Your task to perform on an android device: Clear the cart on ebay.com. Add razer blackwidow to the cart on ebay.com Image 0: 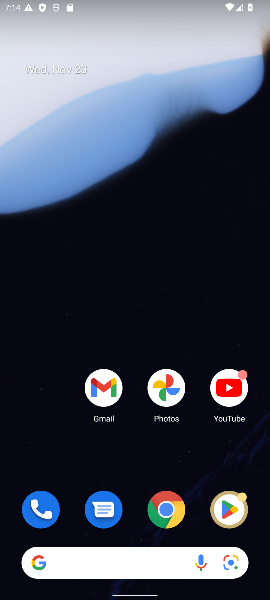
Step 0: click (166, 506)
Your task to perform on an android device: Clear the cart on ebay.com. Add razer blackwidow to the cart on ebay.com Image 1: 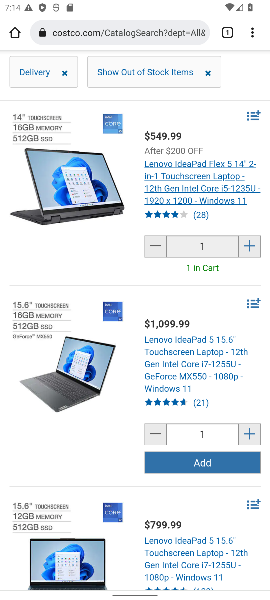
Step 1: click (151, 30)
Your task to perform on an android device: Clear the cart on ebay.com. Add razer blackwidow to the cart on ebay.com Image 2: 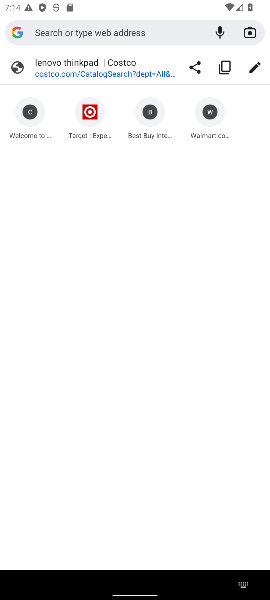
Step 2: type "ebay.com"
Your task to perform on an android device: Clear the cart on ebay.com. Add razer blackwidow to the cart on ebay.com Image 3: 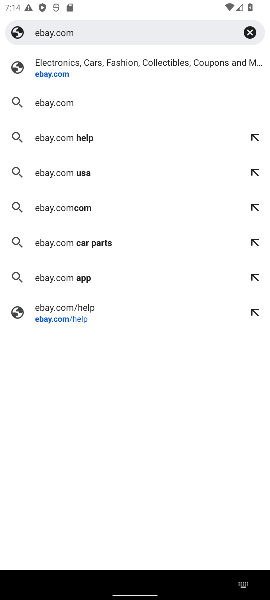
Step 3: click (162, 63)
Your task to perform on an android device: Clear the cart on ebay.com. Add razer blackwidow to the cart on ebay.com Image 4: 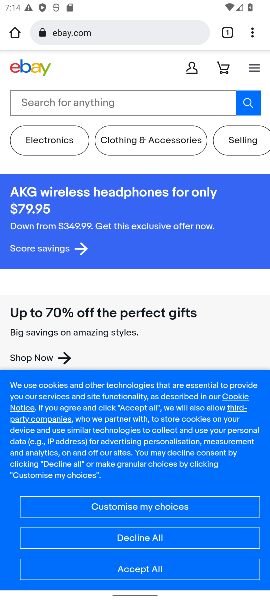
Step 4: click (224, 69)
Your task to perform on an android device: Clear the cart on ebay.com. Add razer blackwidow to the cart on ebay.com Image 5: 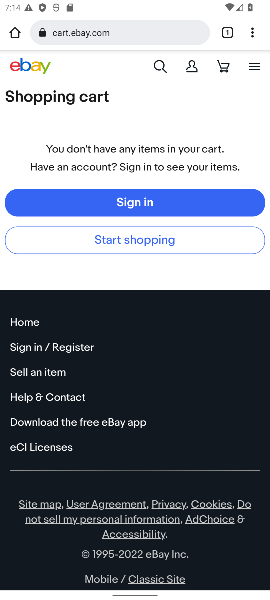
Step 5: click (162, 68)
Your task to perform on an android device: Clear the cart on ebay.com. Add razer blackwidow to the cart on ebay.com Image 6: 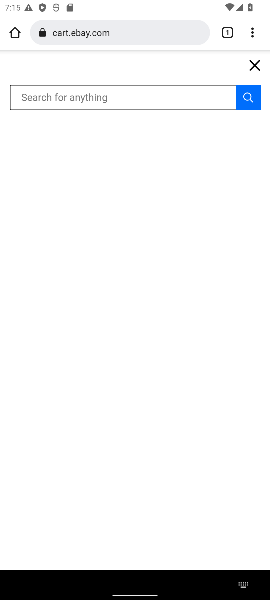
Step 6: type "razer blackwidow"
Your task to perform on an android device: Clear the cart on ebay.com. Add razer blackwidow to the cart on ebay.com Image 7: 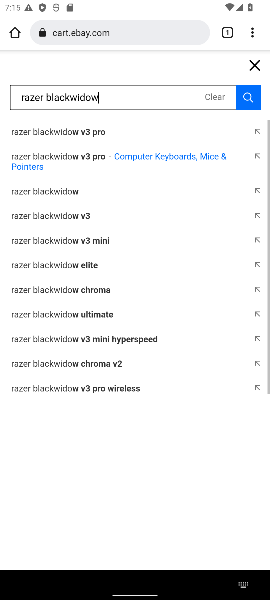
Step 7: press enter
Your task to perform on an android device: Clear the cart on ebay.com. Add razer blackwidow to the cart on ebay.com Image 8: 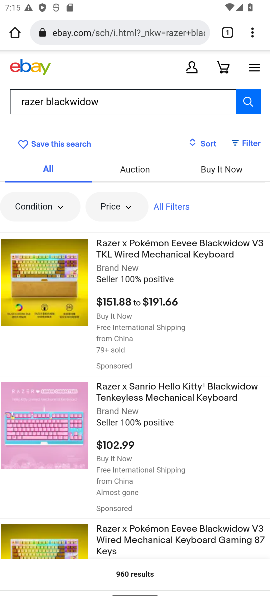
Step 8: click (167, 262)
Your task to perform on an android device: Clear the cart on ebay.com. Add razer blackwidow to the cart on ebay.com Image 9: 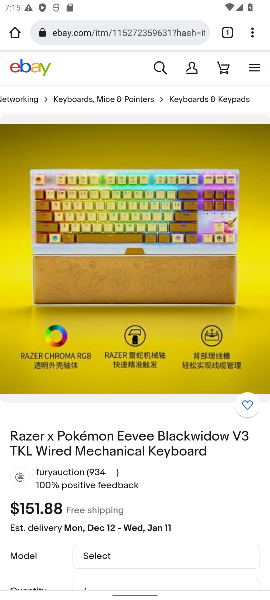
Step 9: drag from (177, 453) to (172, 188)
Your task to perform on an android device: Clear the cart on ebay.com. Add razer blackwidow to the cart on ebay.com Image 10: 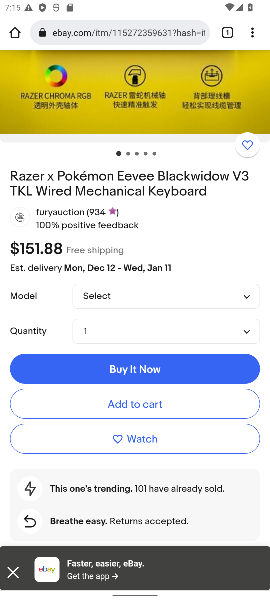
Step 10: click (149, 400)
Your task to perform on an android device: Clear the cart on ebay.com. Add razer blackwidow to the cart on ebay.com Image 11: 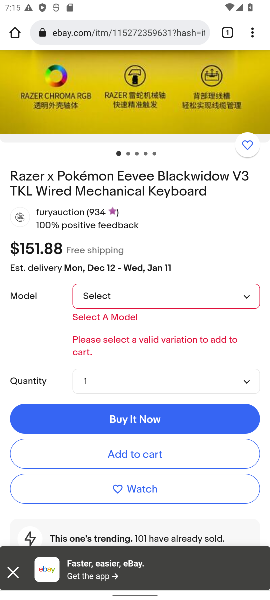
Step 11: click (145, 290)
Your task to perform on an android device: Clear the cart on ebay.com. Add razer blackwidow to the cart on ebay.com Image 12: 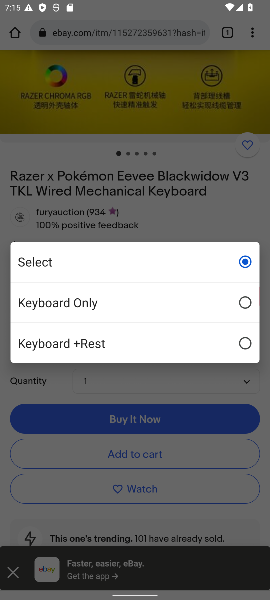
Step 12: click (125, 305)
Your task to perform on an android device: Clear the cart on ebay.com. Add razer blackwidow to the cart on ebay.com Image 13: 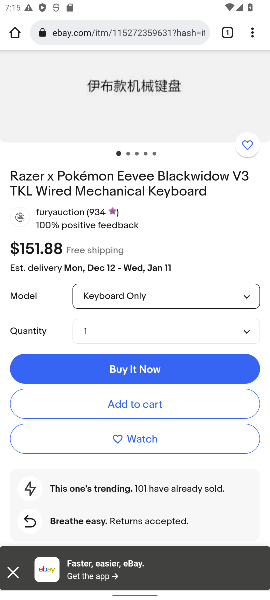
Step 13: click (159, 408)
Your task to perform on an android device: Clear the cart on ebay.com. Add razer blackwidow to the cart on ebay.com Image 14: 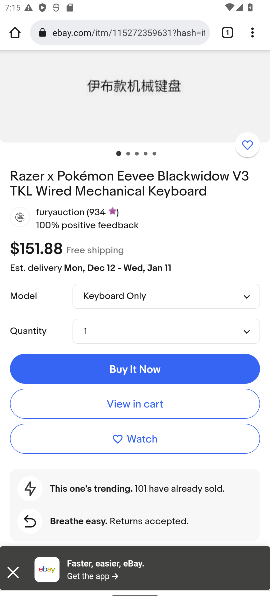
Step 14: task complete